Your task to perform on an android device: visit the assistant section in the google photos Image 0: 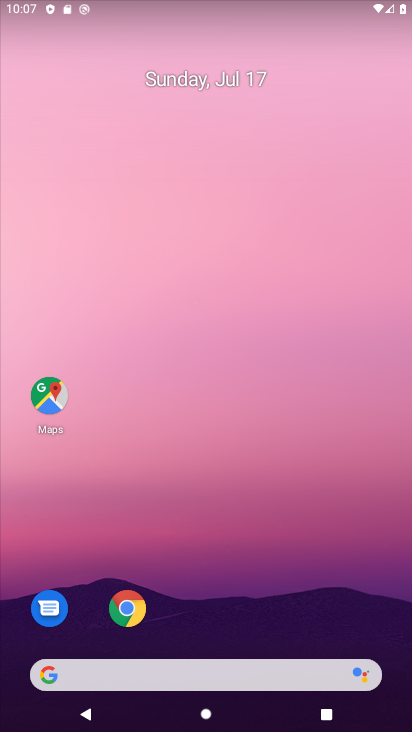
Step 0: drag from (229, 627) to (246, 148)
Your task to perform on an android device: visit the assistant section in the google photos Image 1: 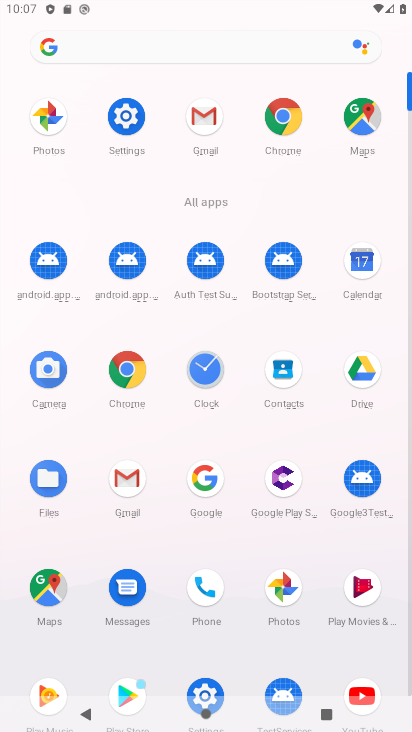
Step 1: click (280, 584)
Your task to perform on an android device: visit the assistant section in the google photos Image 2: 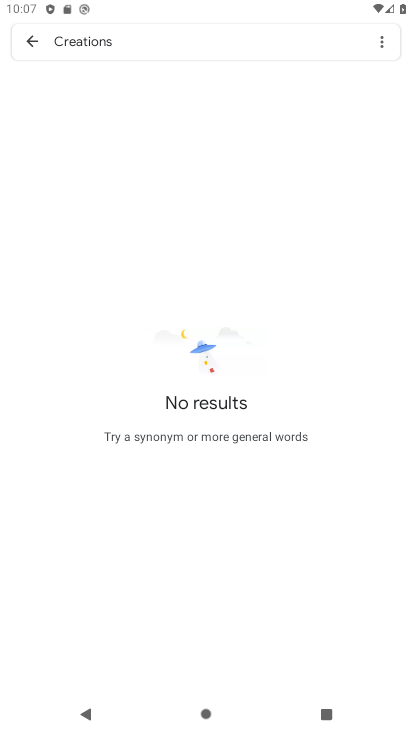
Step 2: task complete